Your task to perform on an android device: Open the web browser Image 0: 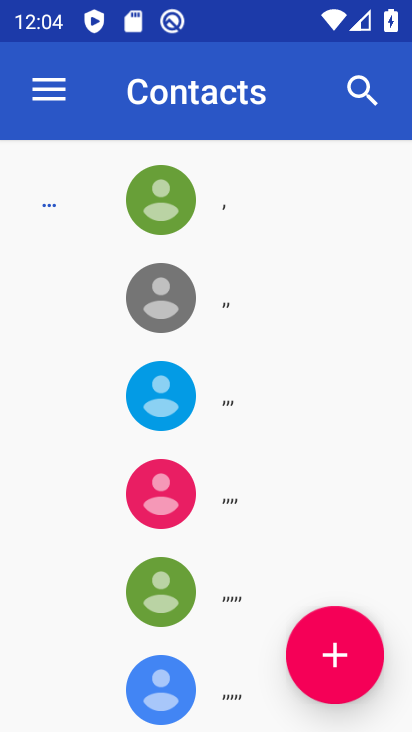
Step 0: press back button
Your task to perform on an android device: Open the web browser Image 1: 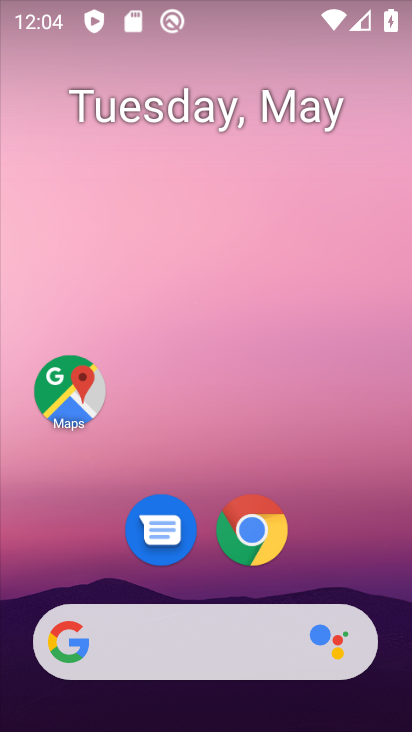
Step 1: drag from (333, 585) to (273, 66)
Your task to perform on an android device: Open the web browser Image 2: 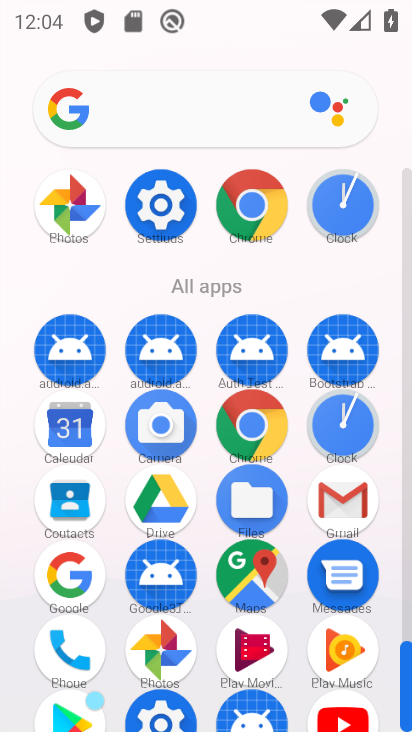
Step 2: click (250, 200)
Your task to perform on an android device: Open the web browser Image 3: 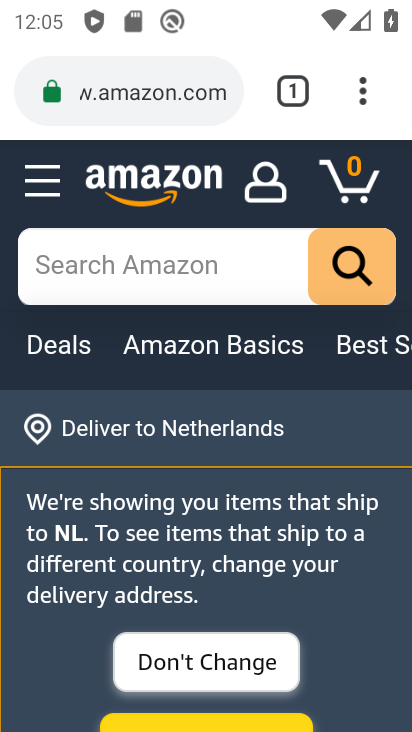
Step 3: task complete